Your task to perform on an android device: toggle improve location accuracy Image 0: 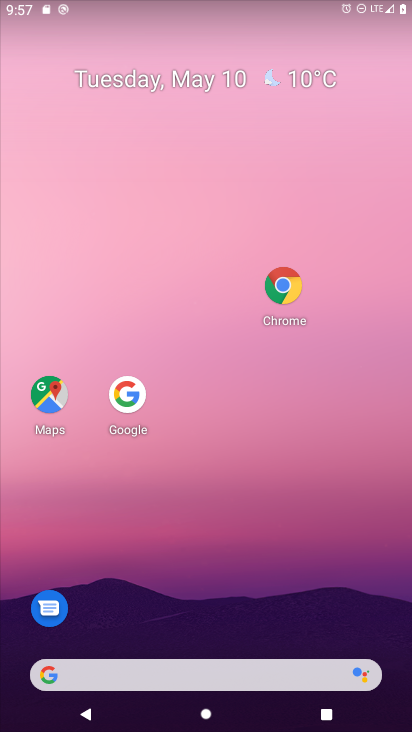
Step 0: press home button
Your task to perform on an android device: toggle improve location accuracy Image 1: 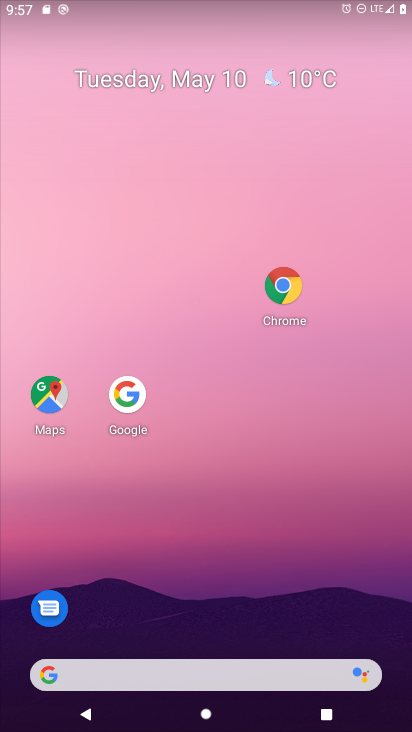
Step 1: drag from (152, 670) to (308, 158)
Your task to perform on an android device: toggle improve location accuracy Image 2: 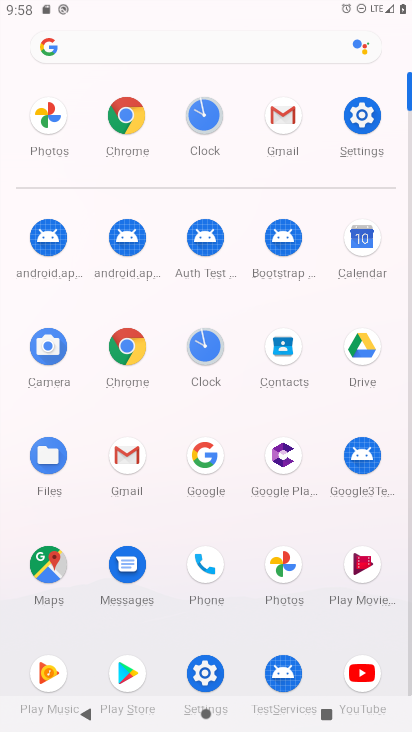
Step 2: click (367, 113)
Your task to perform on an android device: toggle improve location accuracy Image 3: 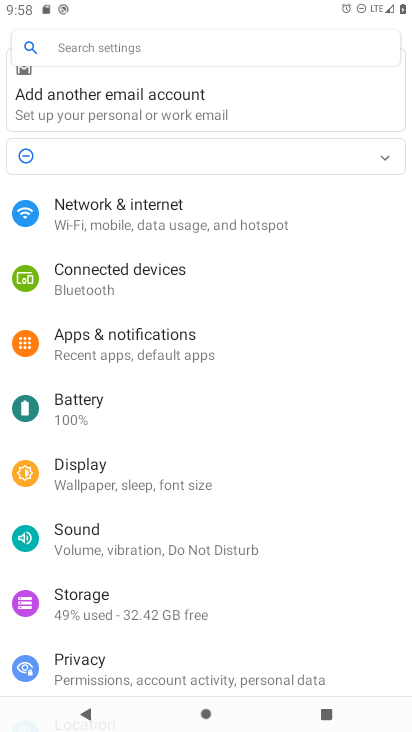
Step 3: drag from (226, 505) to (339, 152)
Your task to perform on an android device: toggle improve location accuracy Image 4: 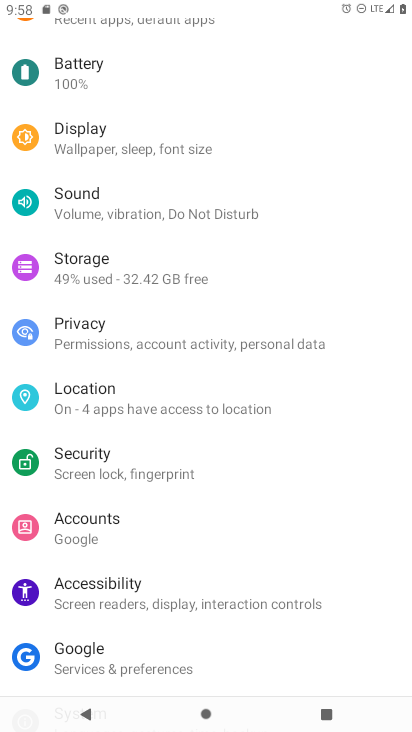
Step 4: click (123, 397)
Your task to perform on an android device: toggle improve location accuracy Image 5: 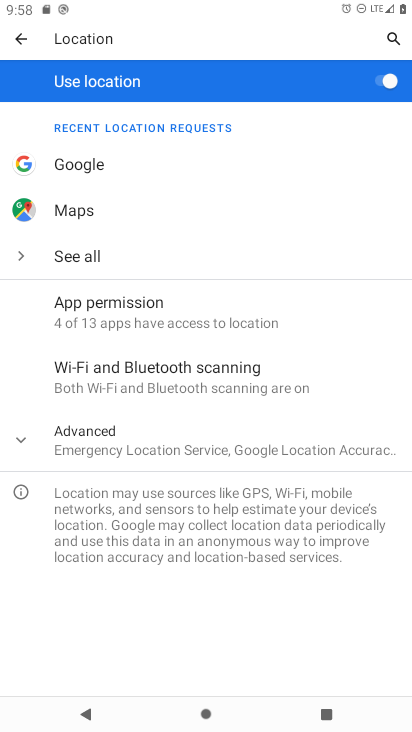
Step 5: click (109, 443)
Your task to perform on an android device: toggle improve location accuracy Image 6: 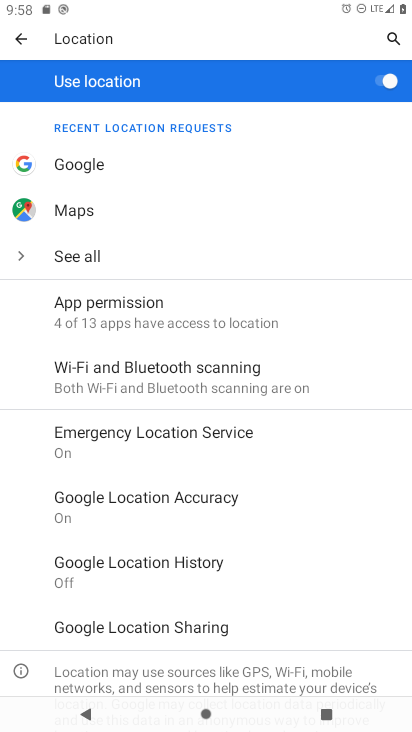
Step 6: click (162, 501)
Your task to perform on an android device: toggle improve location accuracy Image 7: 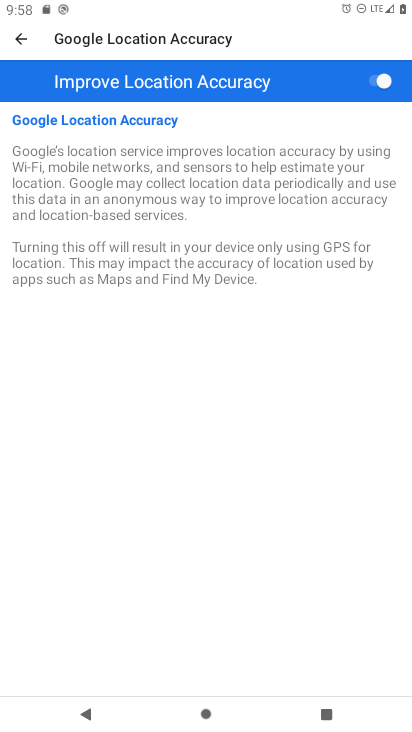
Step 7: click (378, 80)
Your task to perform on an android device: toggle improve location accuracy Image 8: 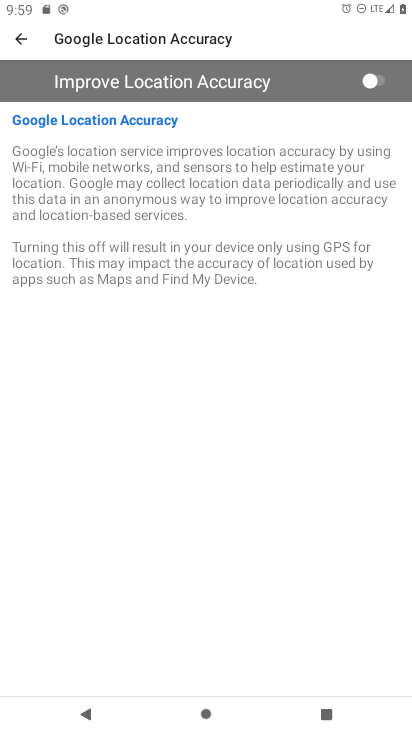
Step 8: task complete